Your task to perform on an android device: check data usage Image 0: 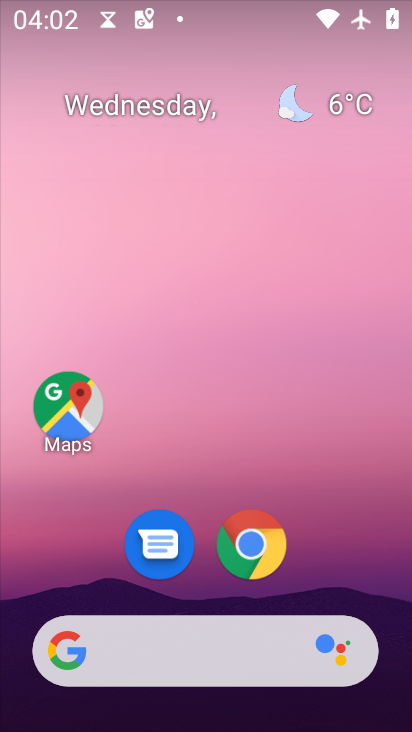
Step 0: drag from (340, 577) to (335, 36)
Your task to perform on an android device: check data usage Image 1: 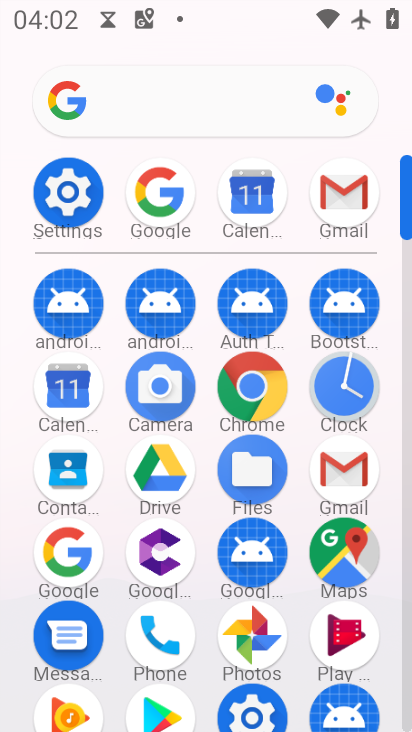
Step 1: click (67, 192)
Your task to perform on an android device: check data usage Image 2: 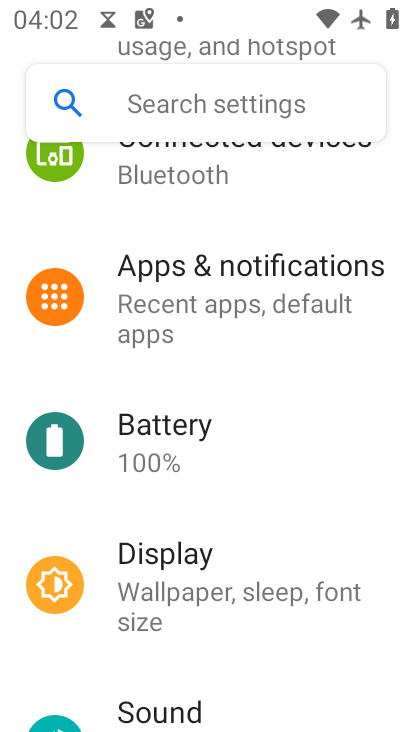
Step 2: drag from (166, 263) to (221, 501)
Your task to perform on an android device: check data usage Image 3: 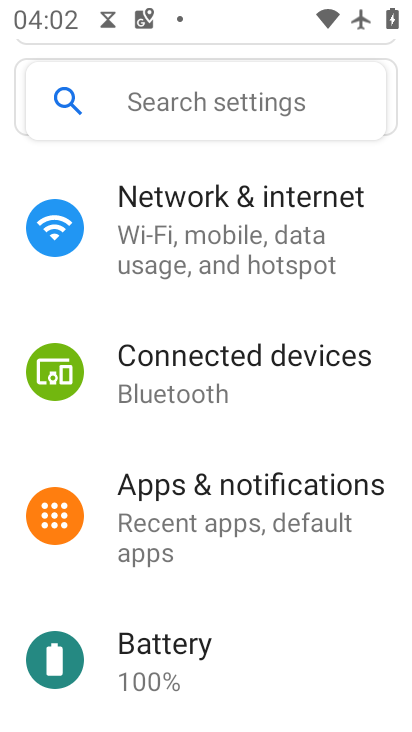
Step 3: click (200, 260)
Your task to perform on an android device: check data usage Image 4: 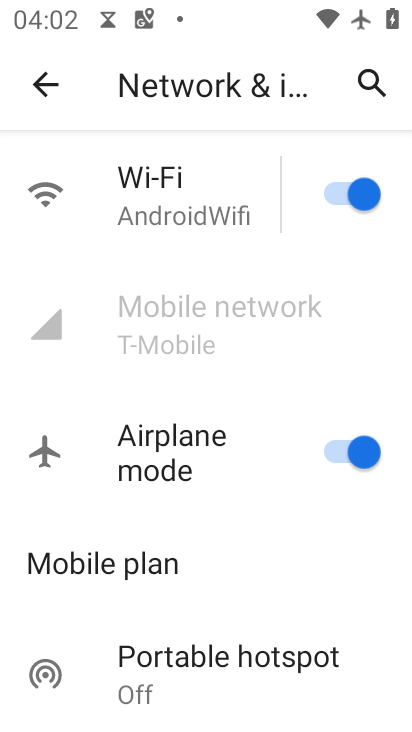
Step 4: click (77, 330)
Your task to perform on an android device: check data usage Image 5: 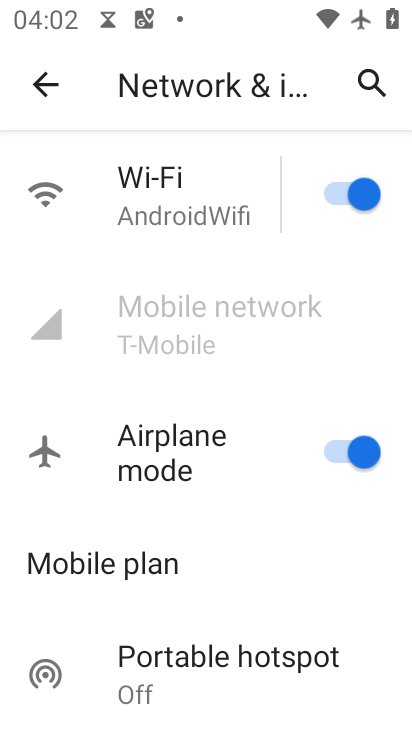
Step 5: task complete